Your task to perform on an android device: delete browsing data in the chrome app Image 0: 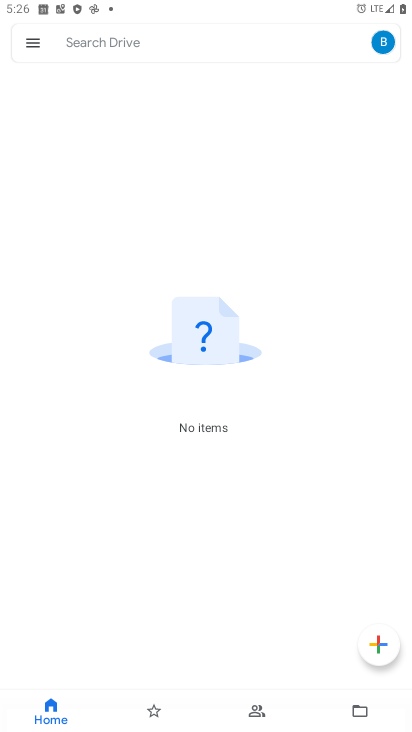
Step 0: press home button
Your task to perform on an android device: delete browsing data in the chrome app Image 1: 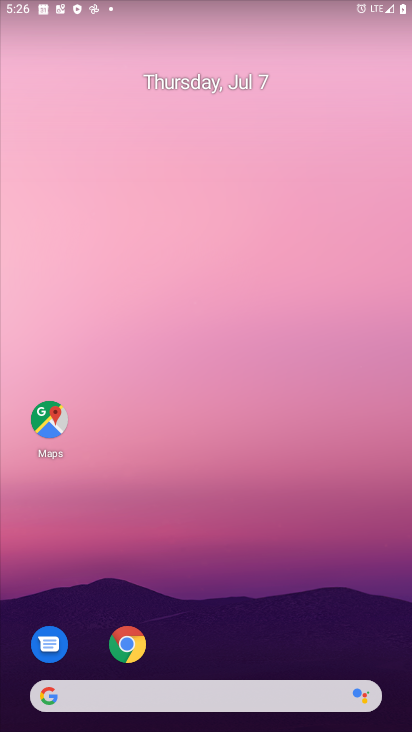
Step 1: click (128, 642)
Your task to perform on an android device: delete browsing data in the chrome app Image 2: 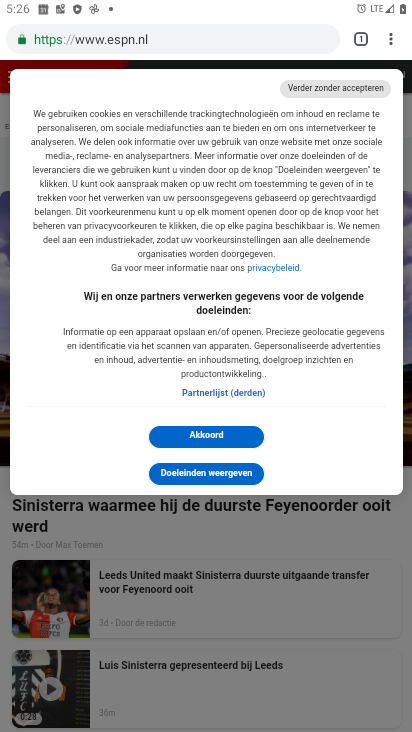
Step 2: click (391, 41)
Your task to perform on an android device: delete browsing data in the chrome app Image 3: 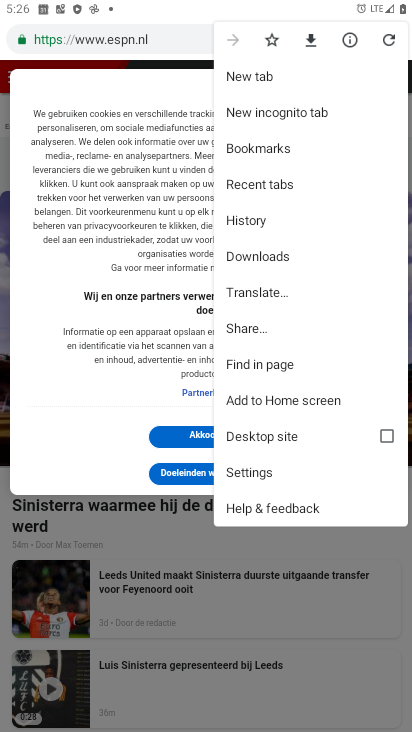
Step 3: click (259, 218)
Your task to perform on an android device: delete browsing data in the chrome app Image 4: 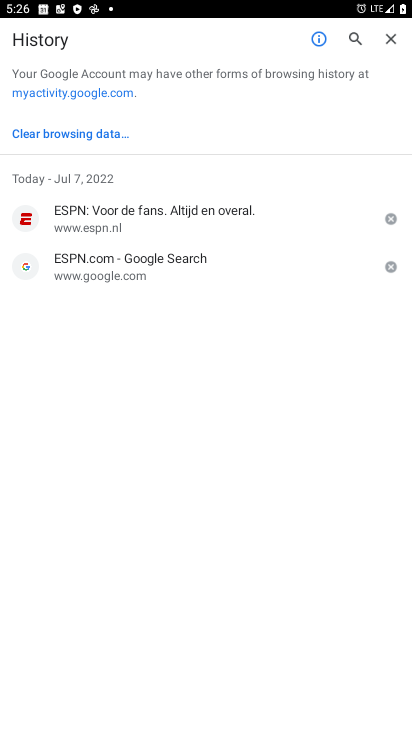
Step 4: click (94, 134)
Your task to perform on an android device: delete browsing data in the chrome app Image 5: 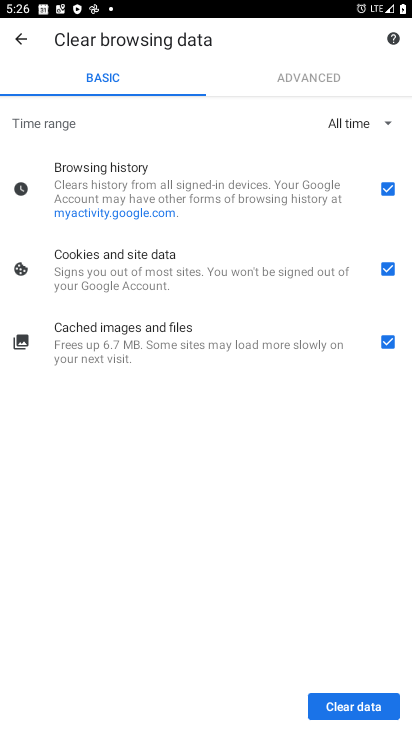
Step 5: click (353, 706)
Your task to perform on an android device: delete browsing data in the chrome app Image 6: 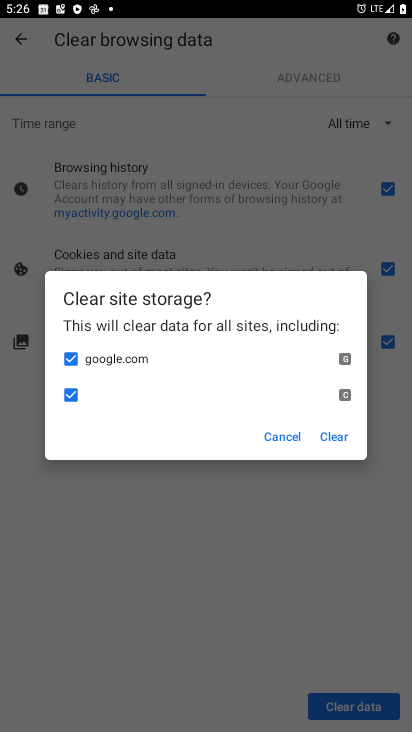
Step 6: click (339, 442)
Your task to perform on an android device: delete browsing data in the chrome app Image 7: 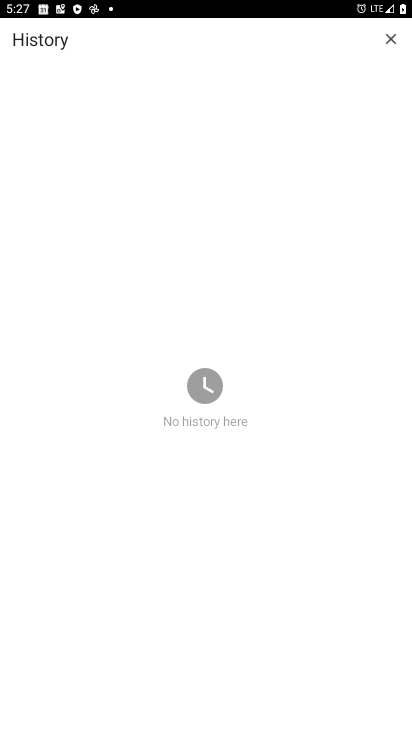
Step 7: task complete